Your task to perform on an android device: turn off improve location accuracy Image 0: 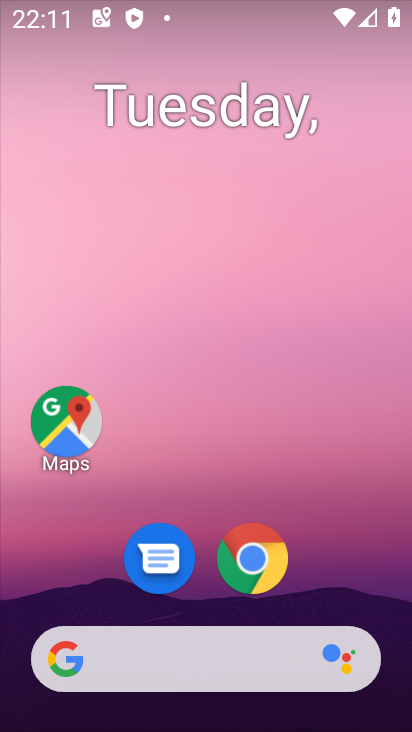
Step 0: drag from (198, 599) to (203, 33)
Your task to perform on an android device: turn off improve location accuracy Image 1: 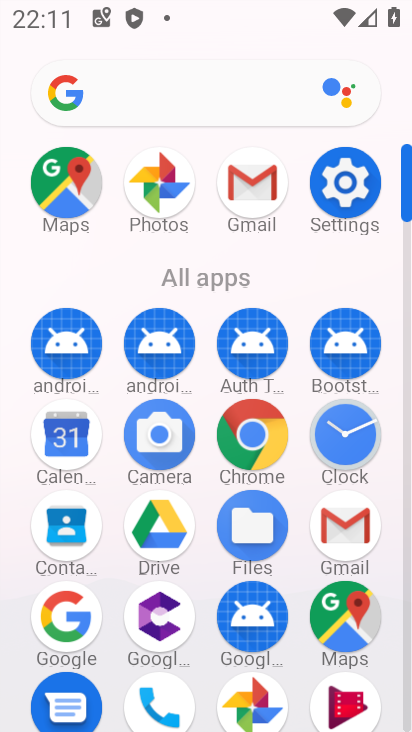
Step 1: click (330, 176)
Your task to perform on an android device: turn off improve location accuracy Image 2: 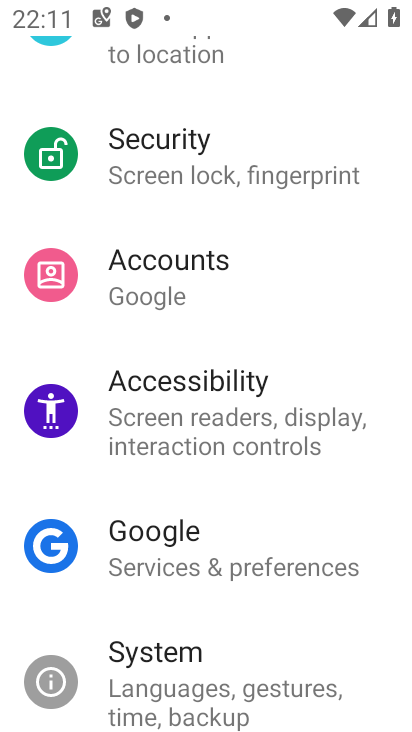
Step 2: drag from (228, 276) to (243, 540)
Your task to perform on an android device: turn off improve location accuracy Image 3: 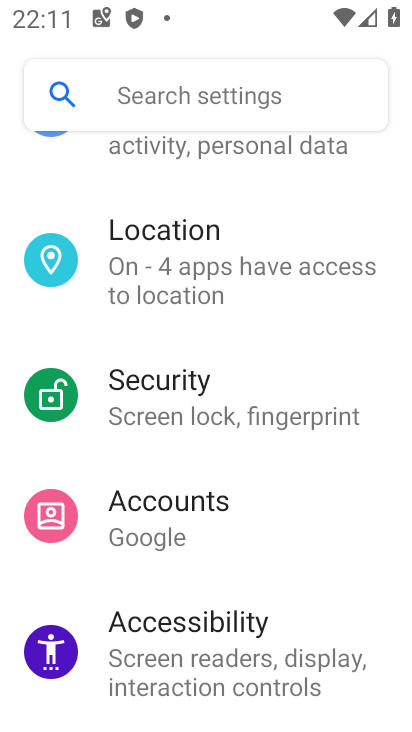
Step 3: click (164, 291)
Your task to perform on an android device: turn off improve location accuracy Image 4: 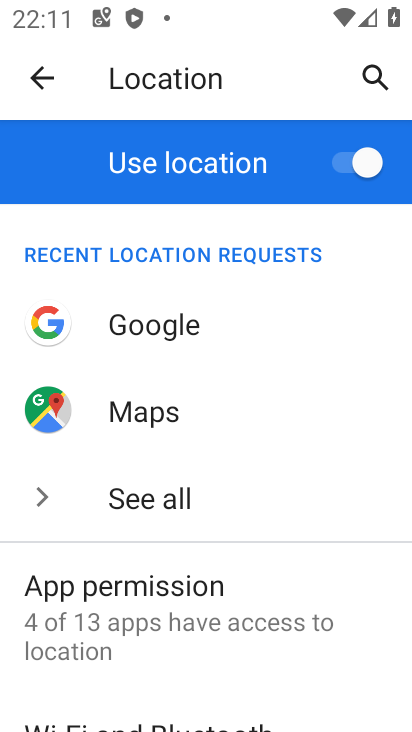
Step 4: drag from (234, 680) to (248, 273)
Your task to perform on an android device: turn off improve location accuracy Image 5: 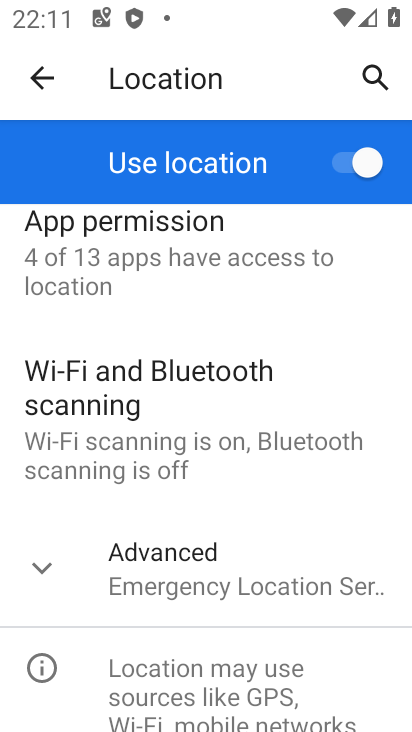
Step 5: click (204, 601)
Your task to perform on an android device: turn off improve location accuracy Image 6: 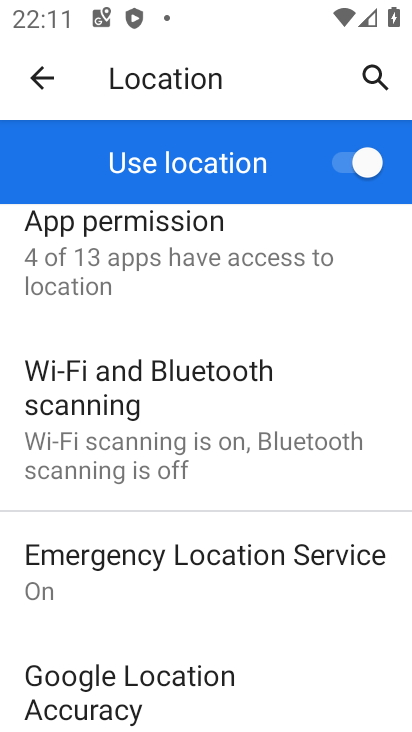
Step 6: click (164, 691)
Your task to perform on an android device: turn off improve location accuracy Image 7: 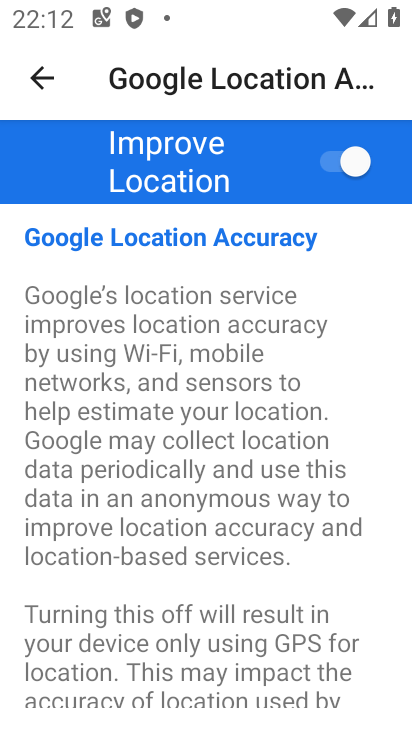
Step 7: click (310, 182)
Your task to perform on an android device: turn off improve location accuracy Image 8: 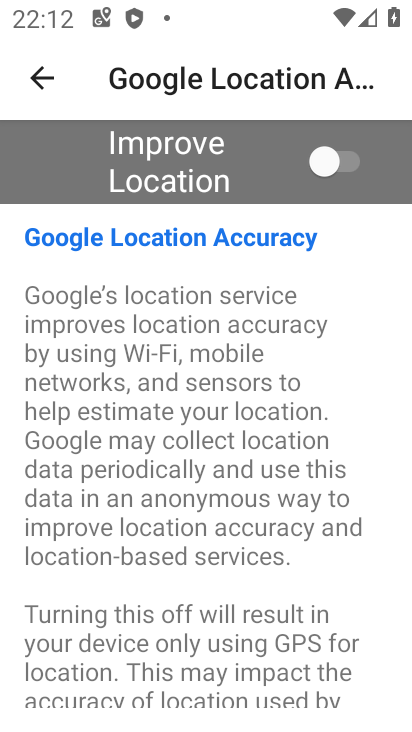
Step 8: task complete